Your task to perform on an android device: Empty the shopping cart on walmart.com. Search for logitech g pro on walmart.com, select the first entry, and add it to the cart. Image 0: 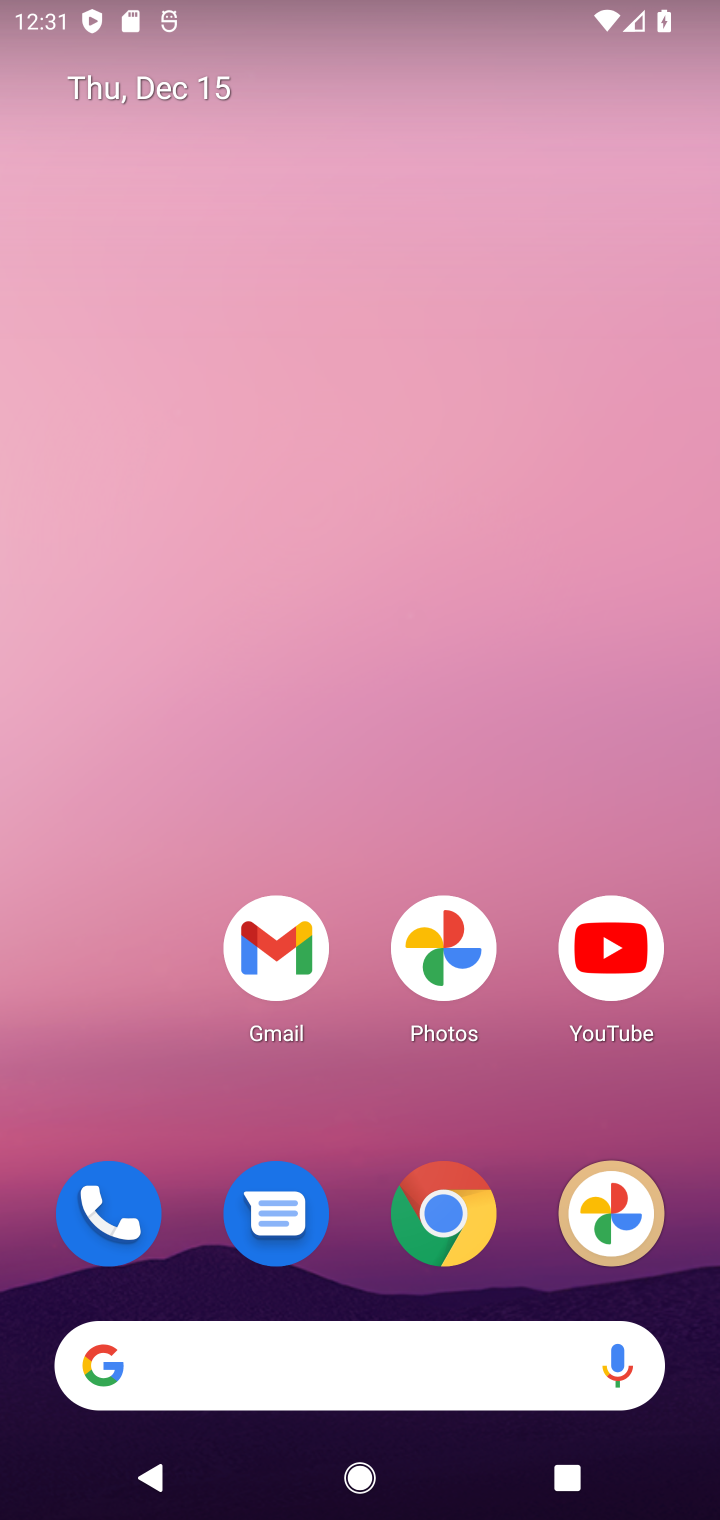
Step 0: click (427, 1215)
Your task to perform on an android device: Empty the shopping cart on walmart.com. Search for logitech g pro on walmart.com, select the first entry, and add it to the cart. Image 1: 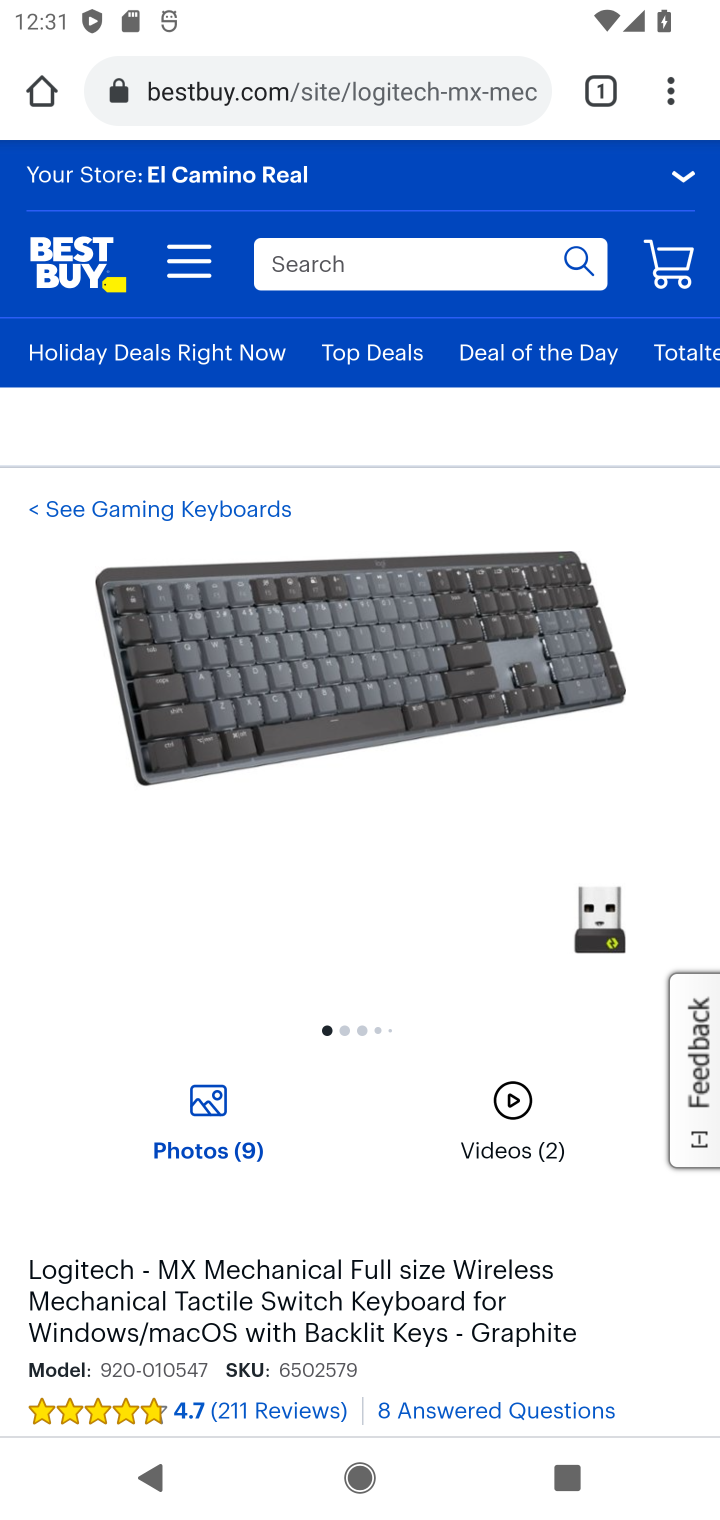
Step 1: click (382, 62)
Your task to perform on an android device: Empty the shopping cart on walmart.com. Search for logitech g pro on walmart.com, select the first entry, and add it to the cart. Image 2: 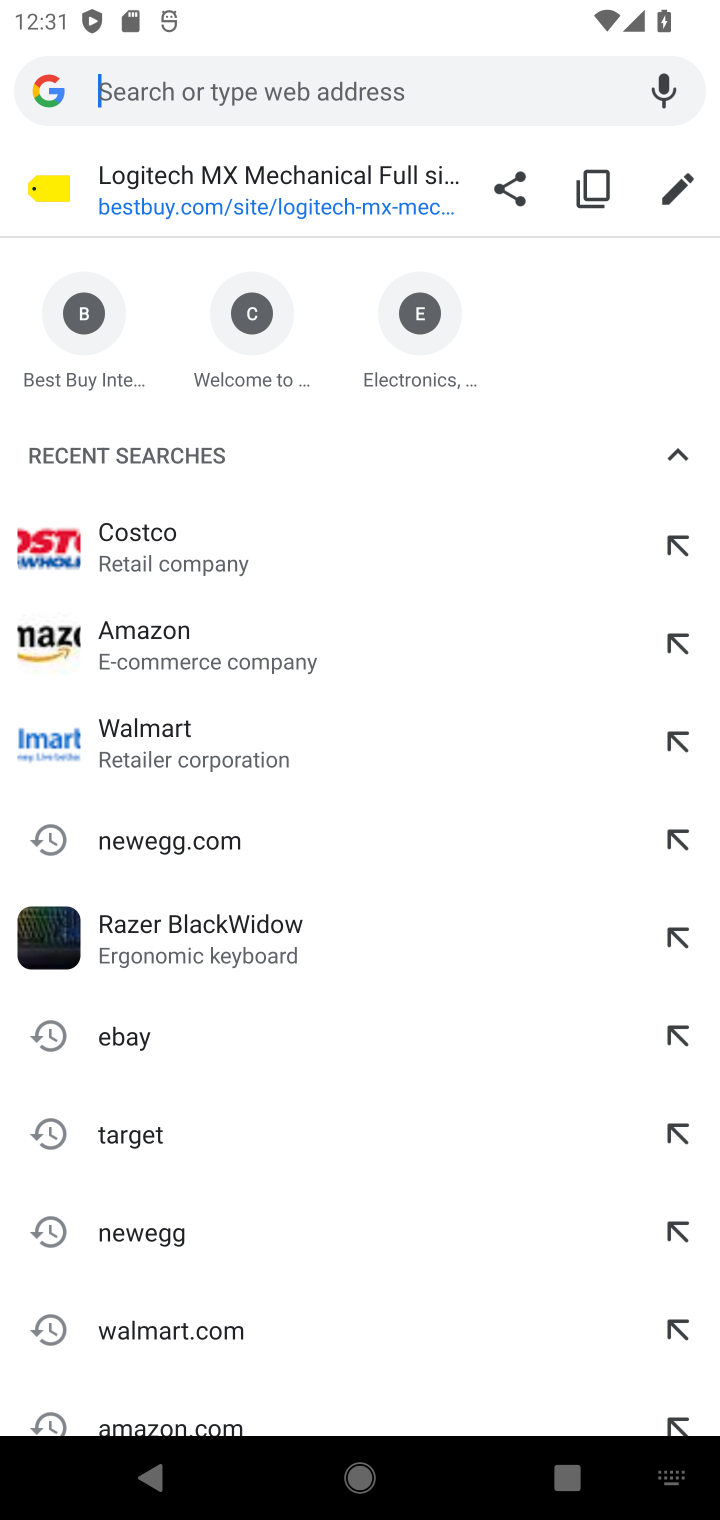
Step 2: click (292, 732)
Your task to perform on an android device: Empty the shopping cart on walmart.com. Search for logitech g pro on walmart.com, select the first entry, and add it to the cart. Image 3: 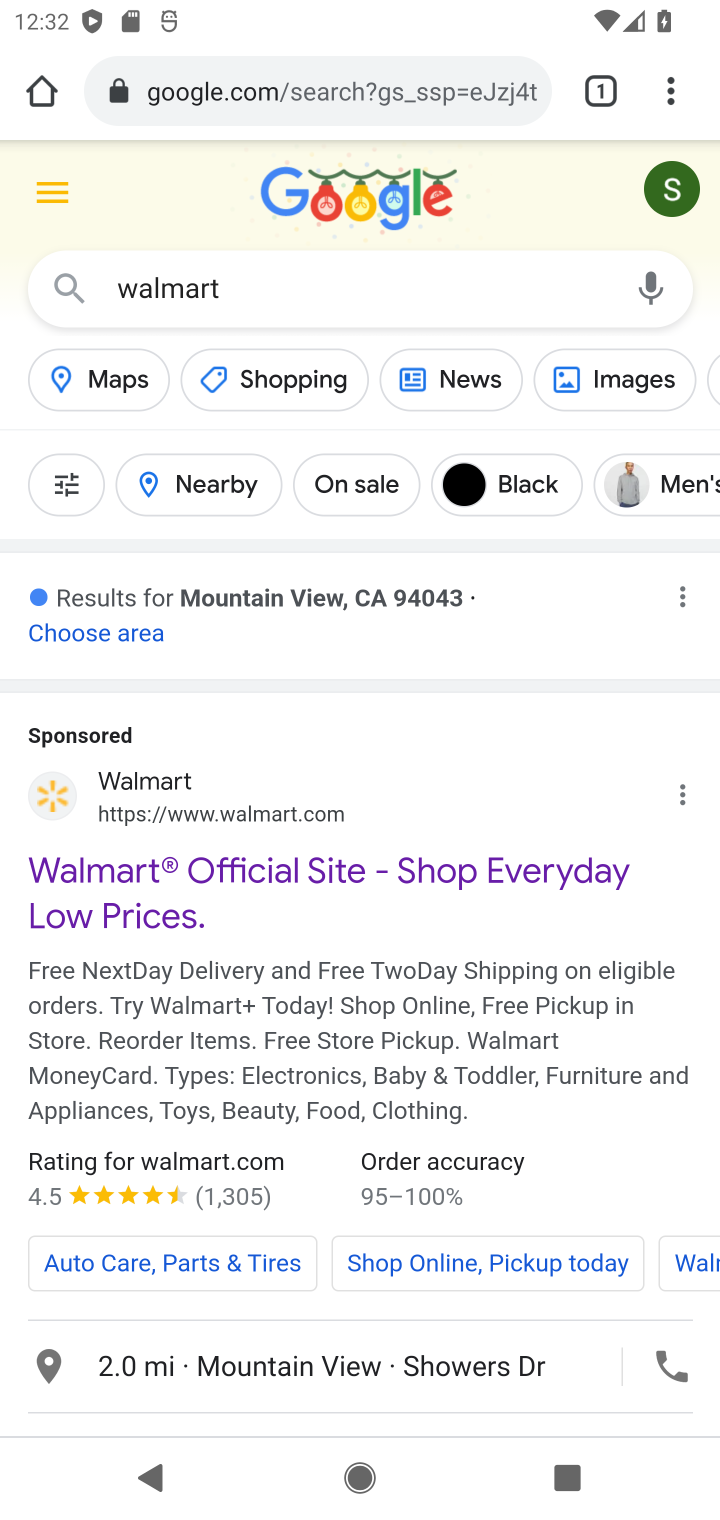
Step 3: click (292, 919)
Your task to perform on an android device: Empty the shopping cart on walmart.com. Search for logitech g pro on walmart.com, select the first entry, and add it to the cart. Image 4: 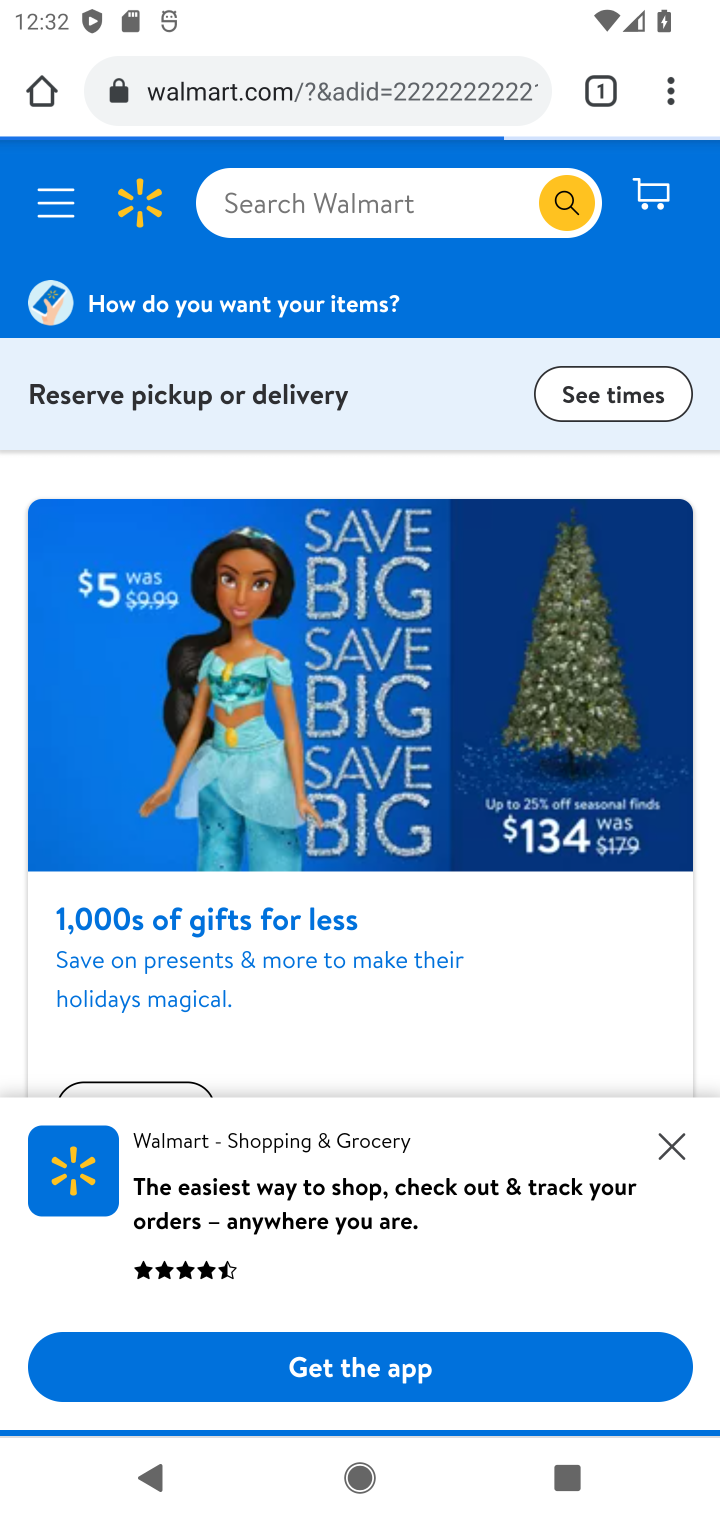
Step 4: click (388, 194)
Your task to perform on an android device: Empty the shopping cart on walmart.com. Search for logitech g pro on walmart.com, select the first entry, and add it to the cart. Image 5: 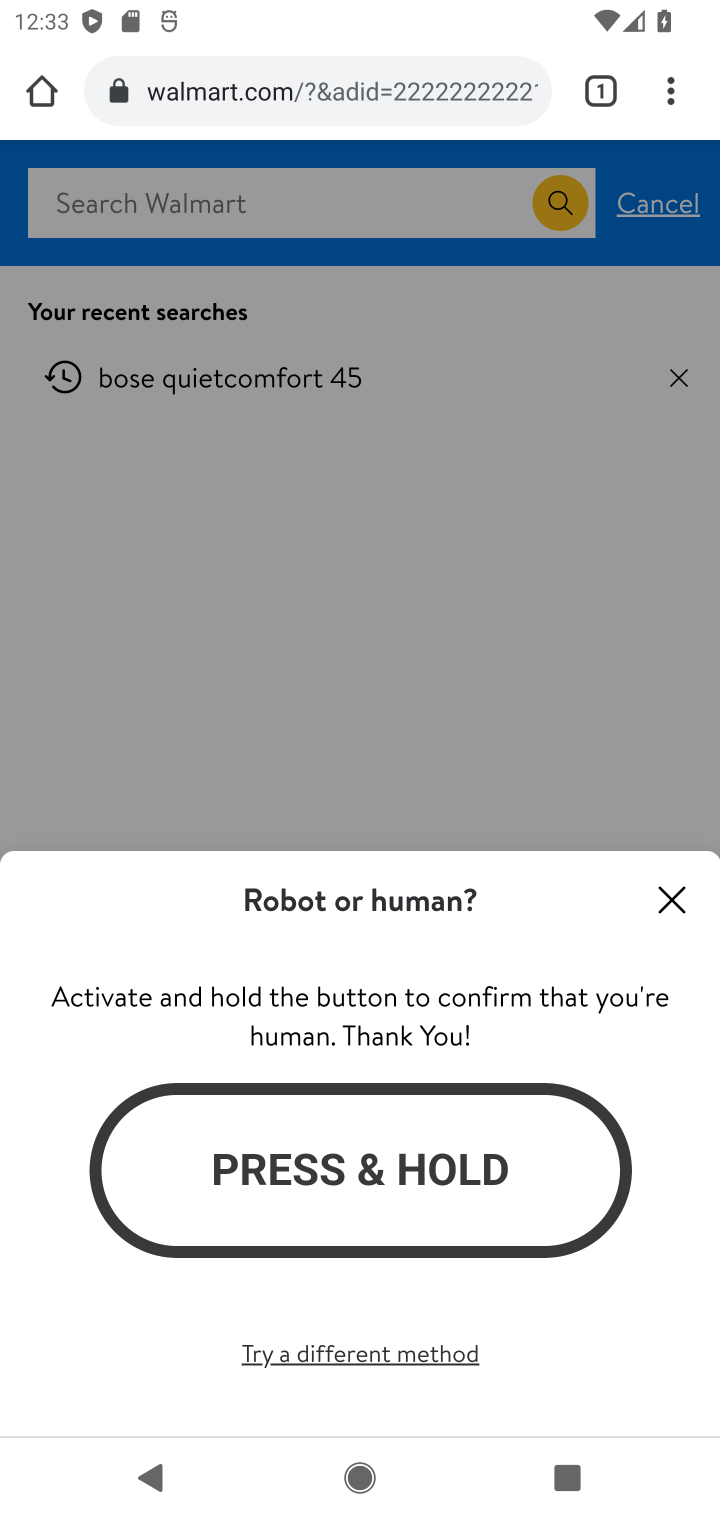
Step 5: type "logitech g pro"
Your task to perform on an android device: Empty the shopping cart on walmart.com. Search for logitech g pro on walmart.com, select the first entry, and add it to the cart. Image 6: 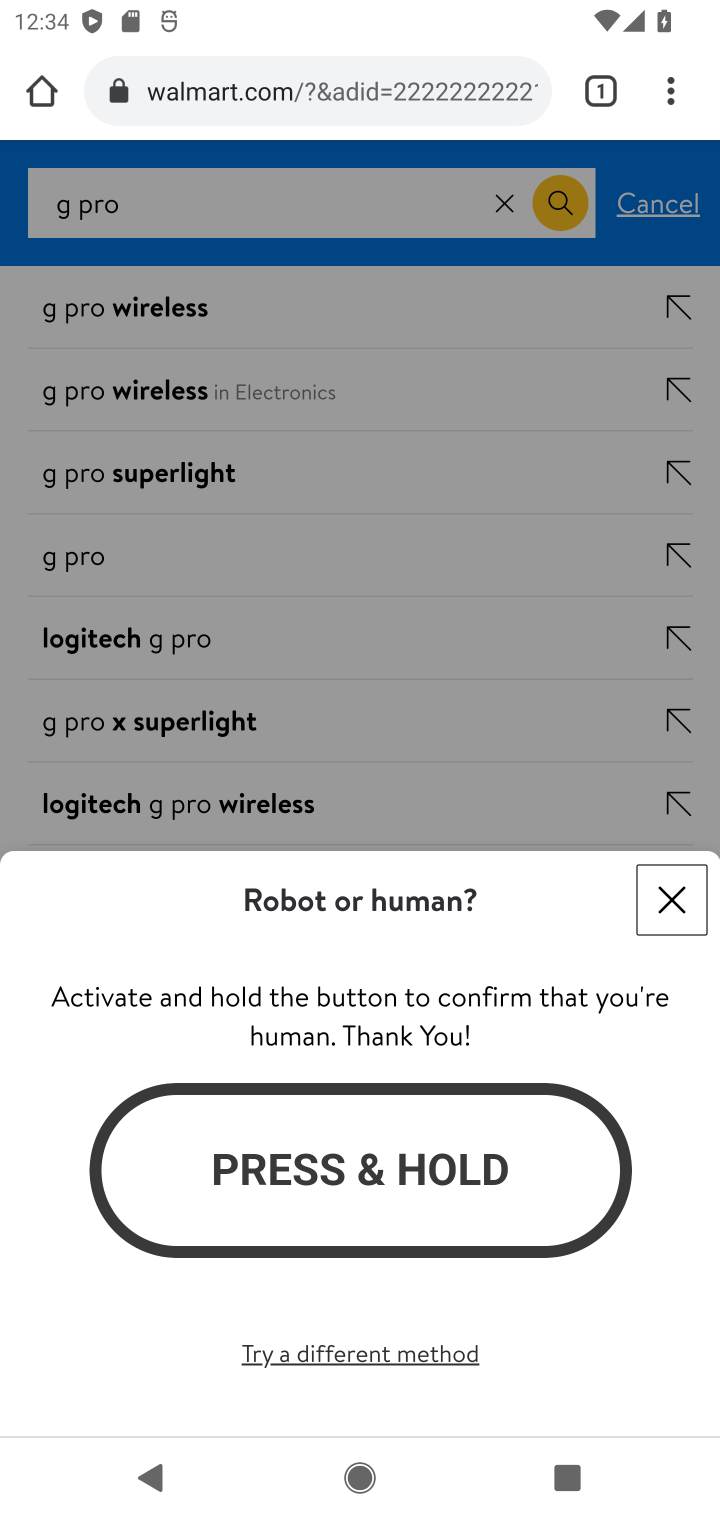
Step 6: click (676, 907)
Your task to perform on an android device: Empty the shopping cart on walmart.com. Search for logitech g pro on walmart.com, select the first entry, and add it to the cart. Image 7: 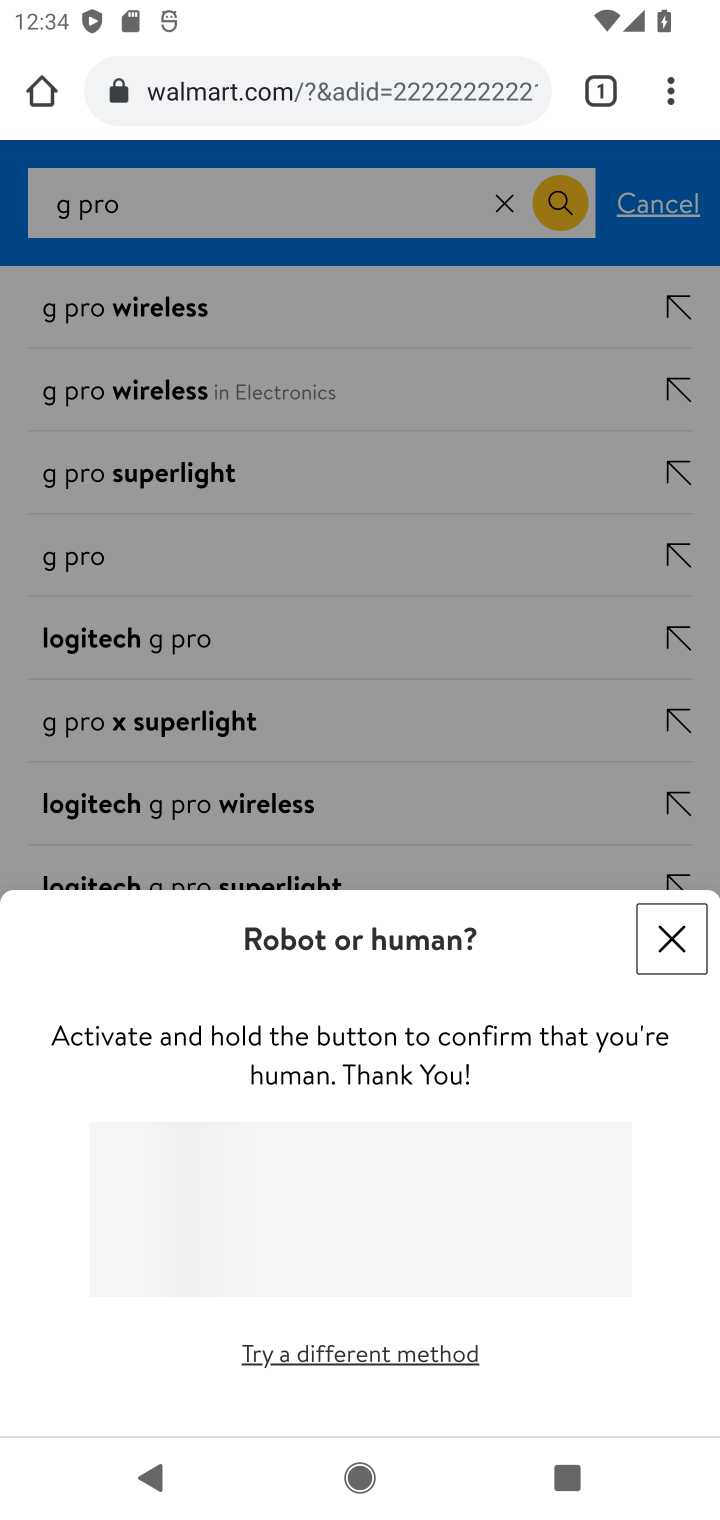
Step 7: click (694, 928)
Your task to perform on an android device: Empty the shopping cart on walmart.com. Search for logitech g pro on walmart.com, select the first entry, and add it to the cart. Image 8: 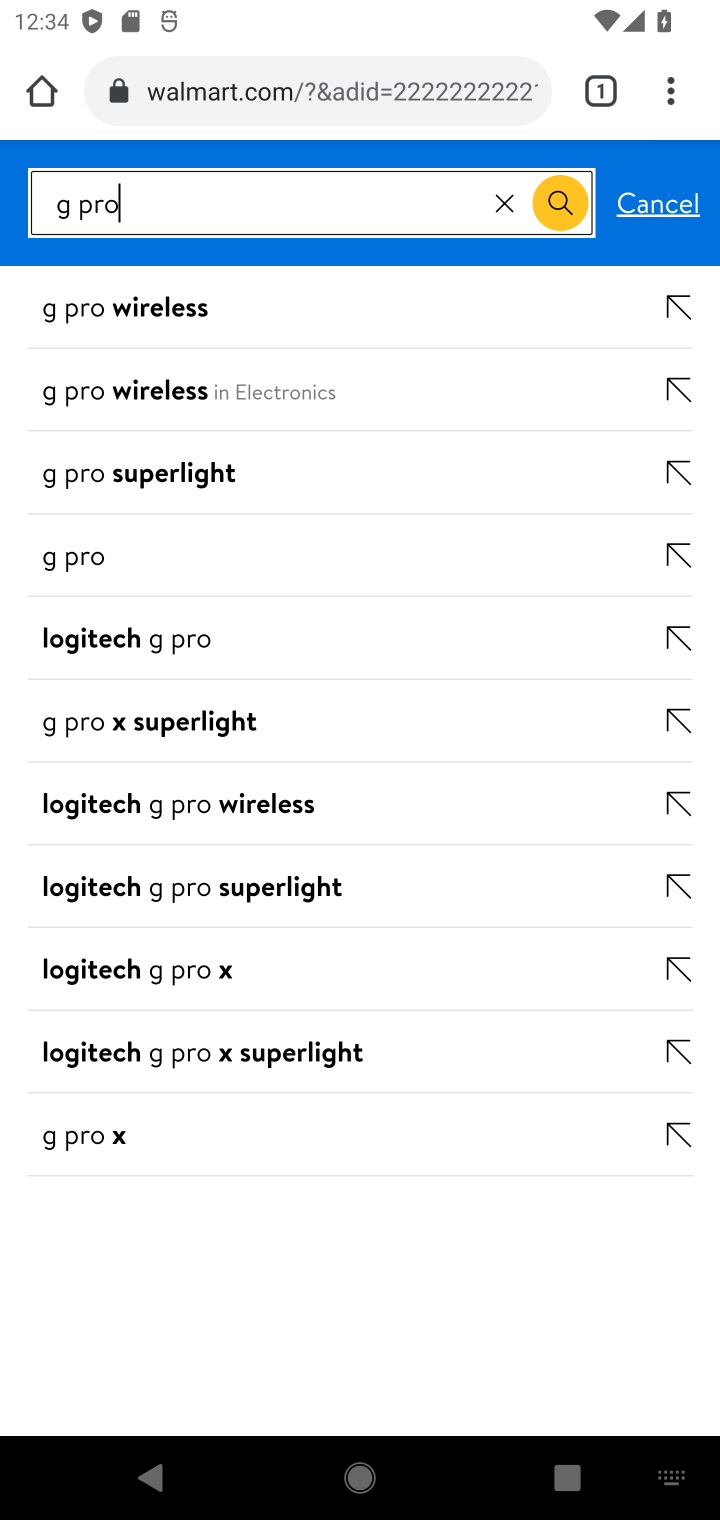
Step 8: click (223, 650)
Your task to perform on an android device: Empty the shopping cart on walmart.com. Search for logitech g pro on walmart.com, select the first entry, and add it to the cart. Image 9: 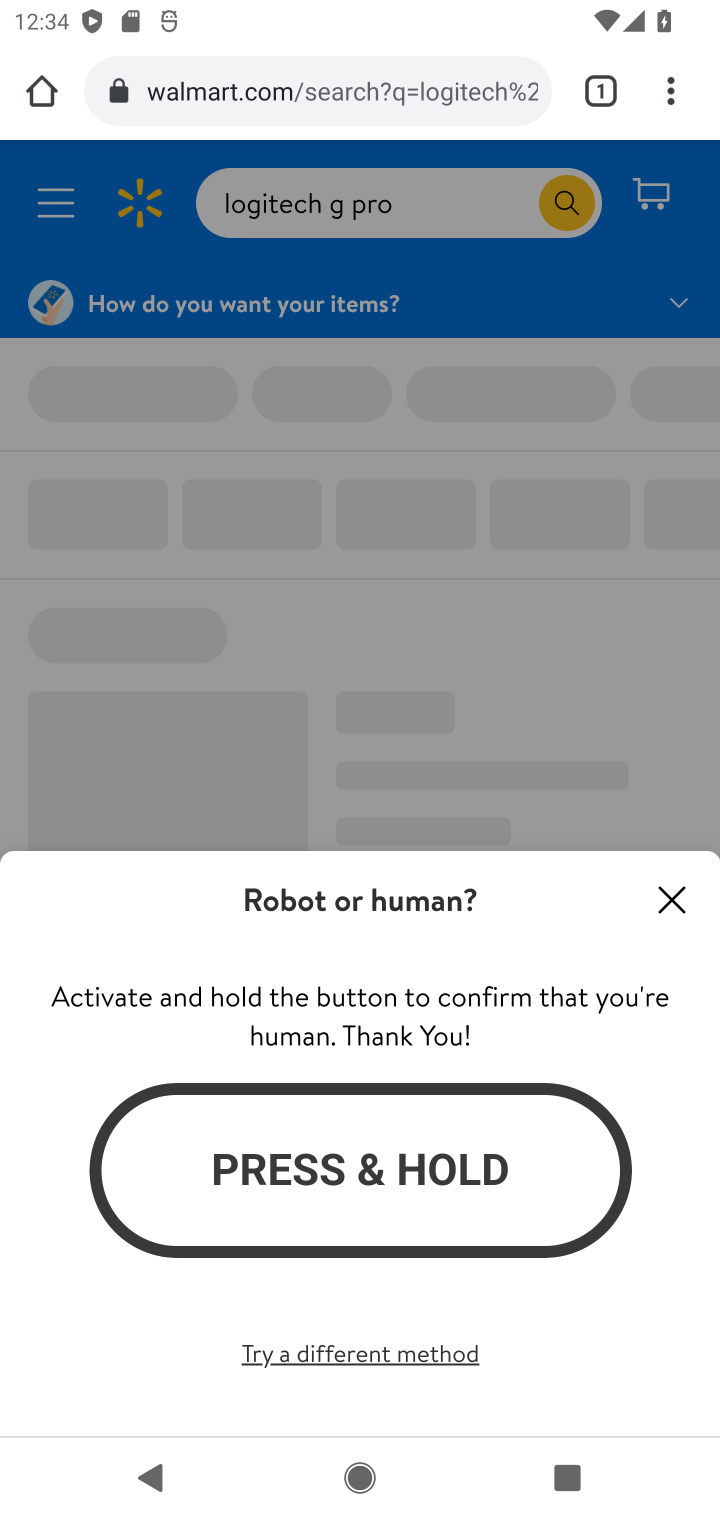
Step 9: click (642, 897)
Your task to perform on an android device: Empty the shopping cart on walmart.com. Search for logitech g pro on walmart.com, select the first entry, and add it to the cart. Image 10: 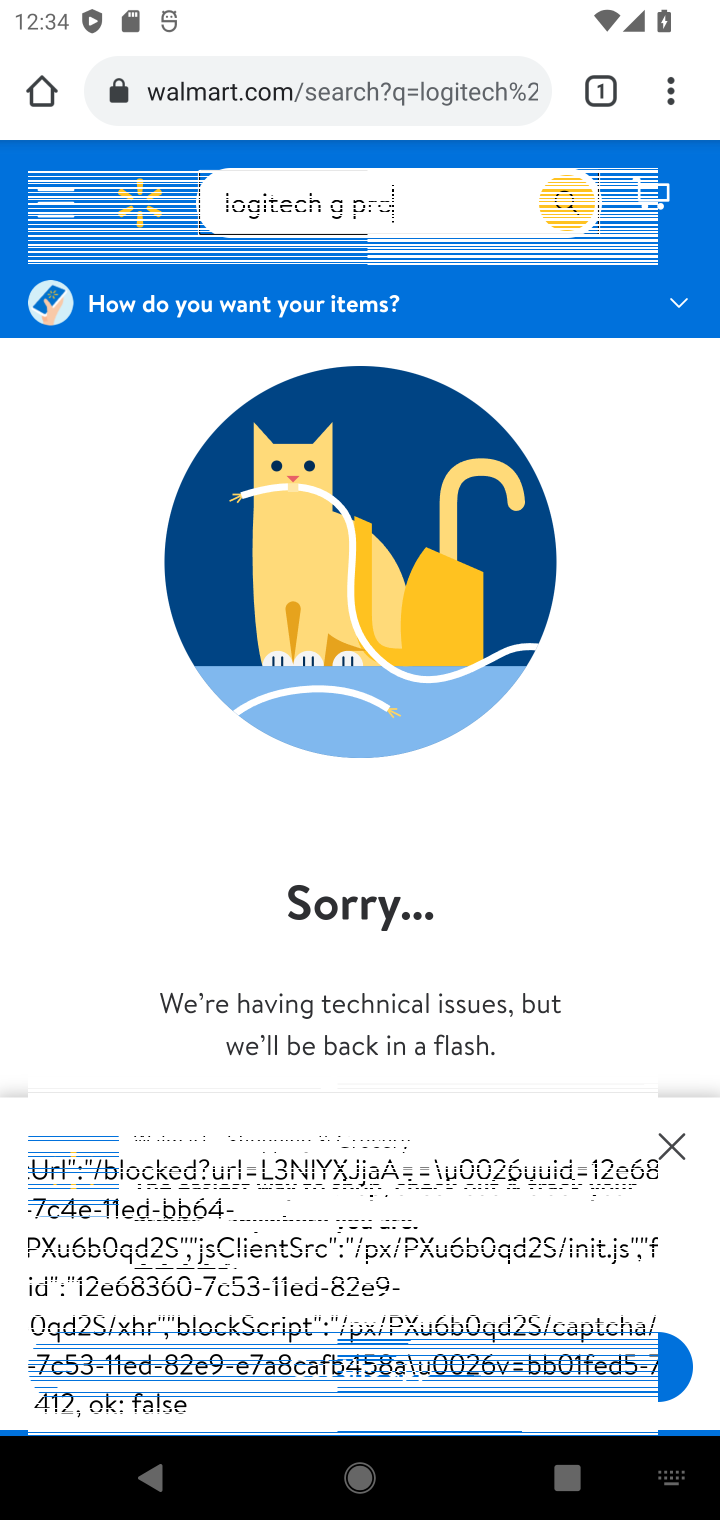
Step 10: click (663, 1145)
Your task to perform on an android device: Empty the shopping cart on walmart.com. Search for logitech g pro on walmart.com, select the first entry, and add it to the cart. Image 11: 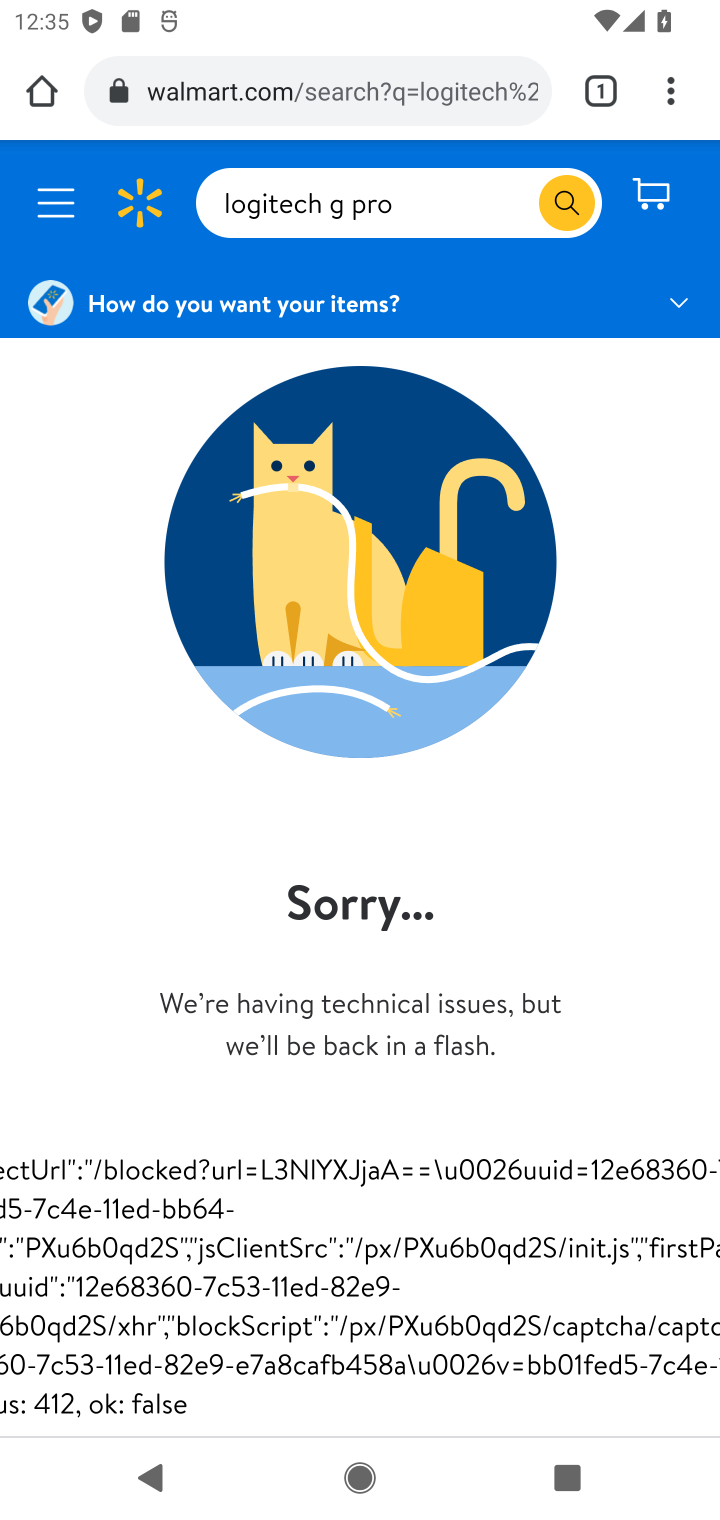
Step 11: click (564, 209)
Your task to perform on an android device: Empty the shopping cart on walmart.com. Search for logitech g pro on walmart.com, select the first entry, and add it to the cart. Image 12: 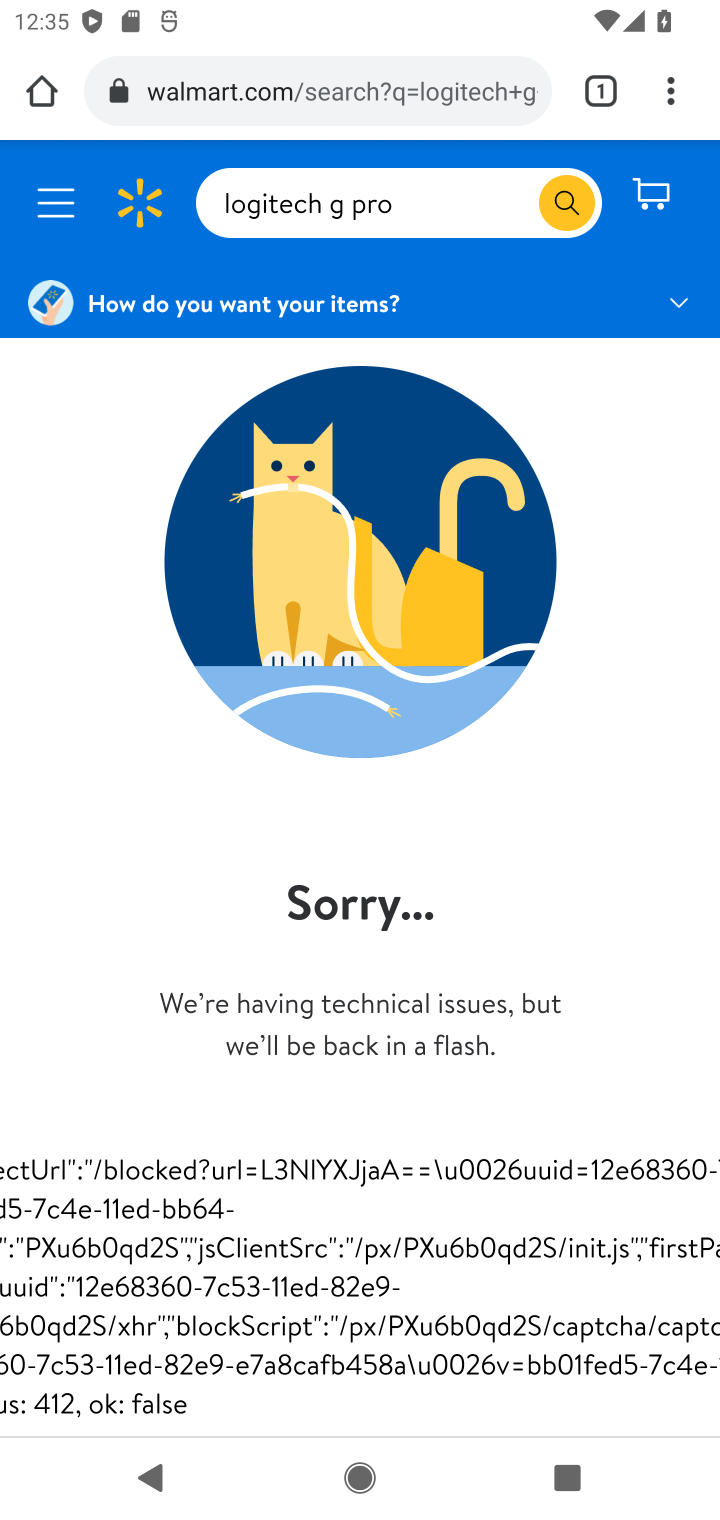
Step 12: task complete